Your task to perform on an android device: Clear all items from cart on bestbuy.com. Search for dell xps on bestbuy.com, select the first entry, and add it to the cart. Image 0: 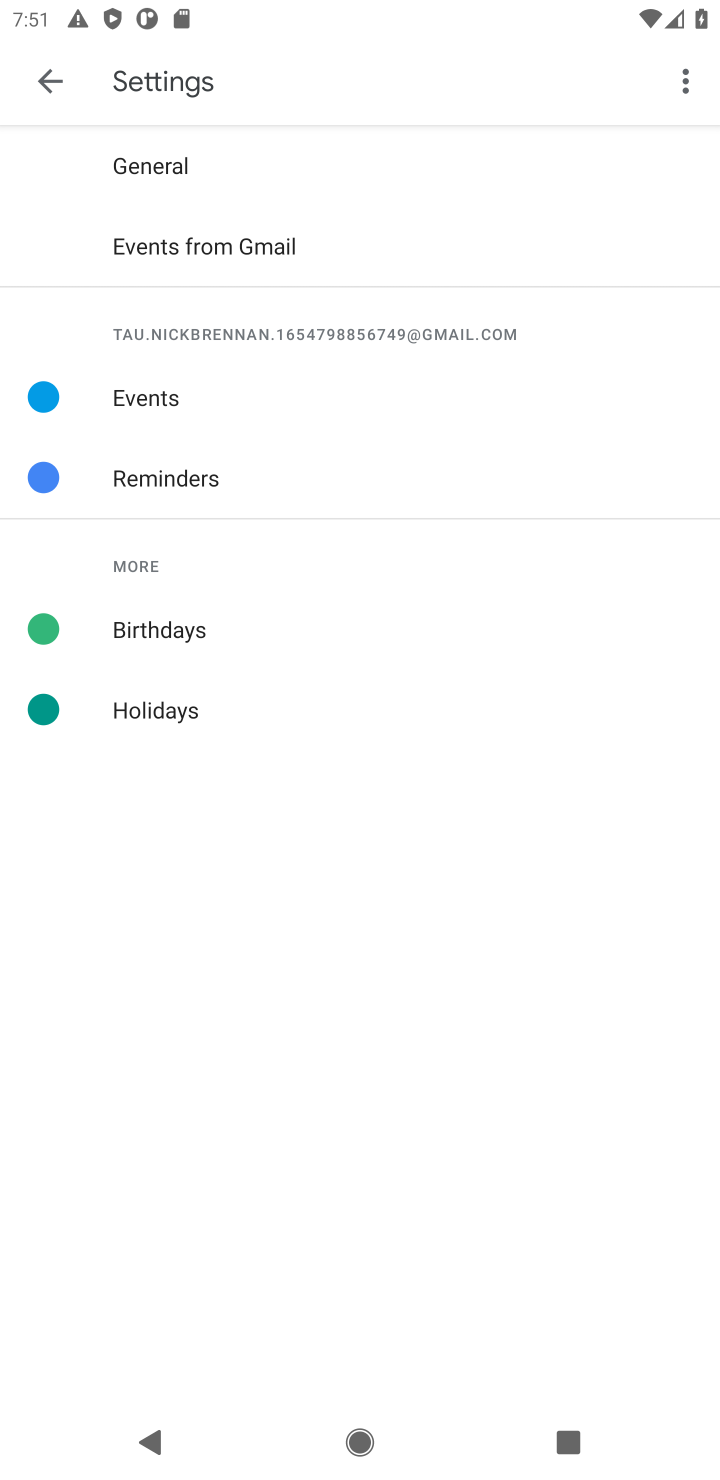
Step 0: press home button
Your task to perform on an android device: Clear all items from cart on bestbuy.com. Search for dell xps on bestbuy.com, select the first entry, and add it to the cart. Image 1: 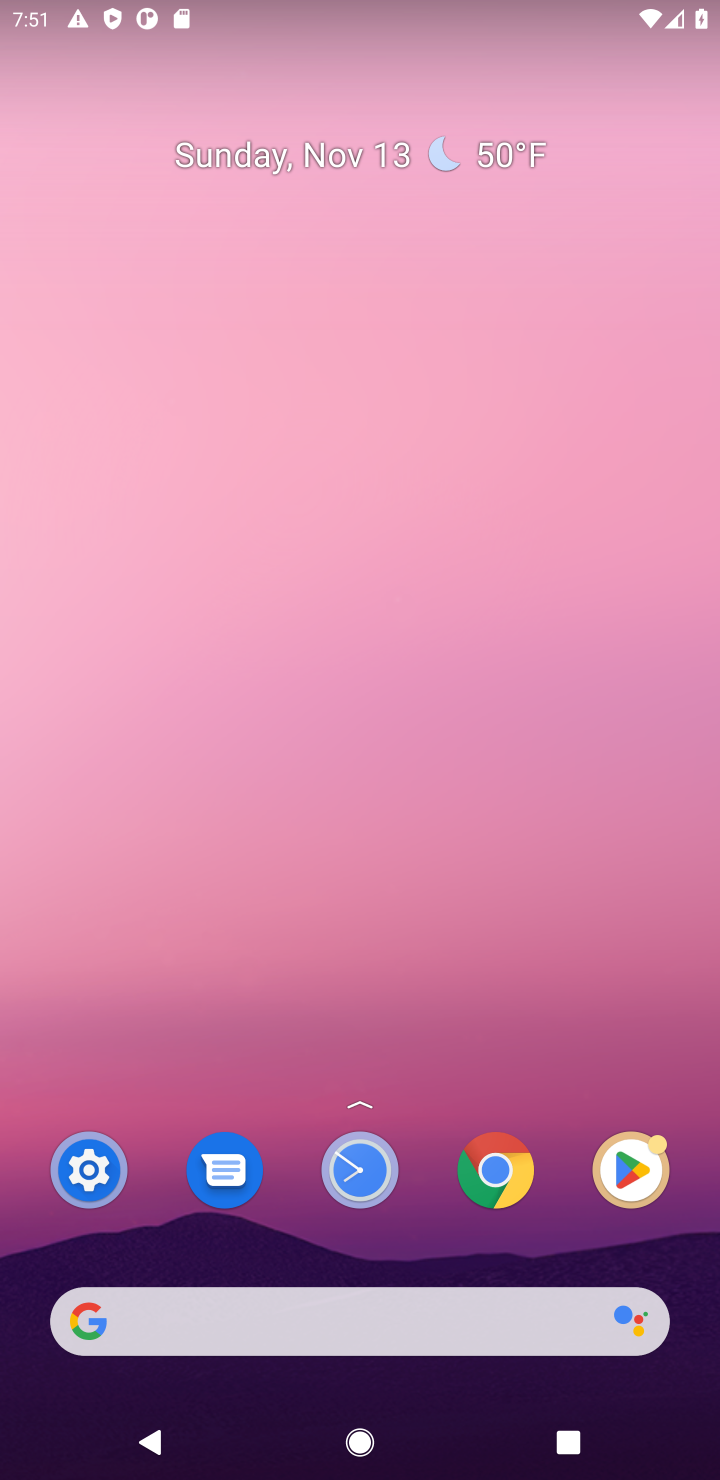
Step 1: click (400, 1338)
Your task to perform on an android device: Clear all items from cart on bestbuy.com. Search for dell xps on bestbuy.com, select the first entry, and add it to the cart. Image 2: 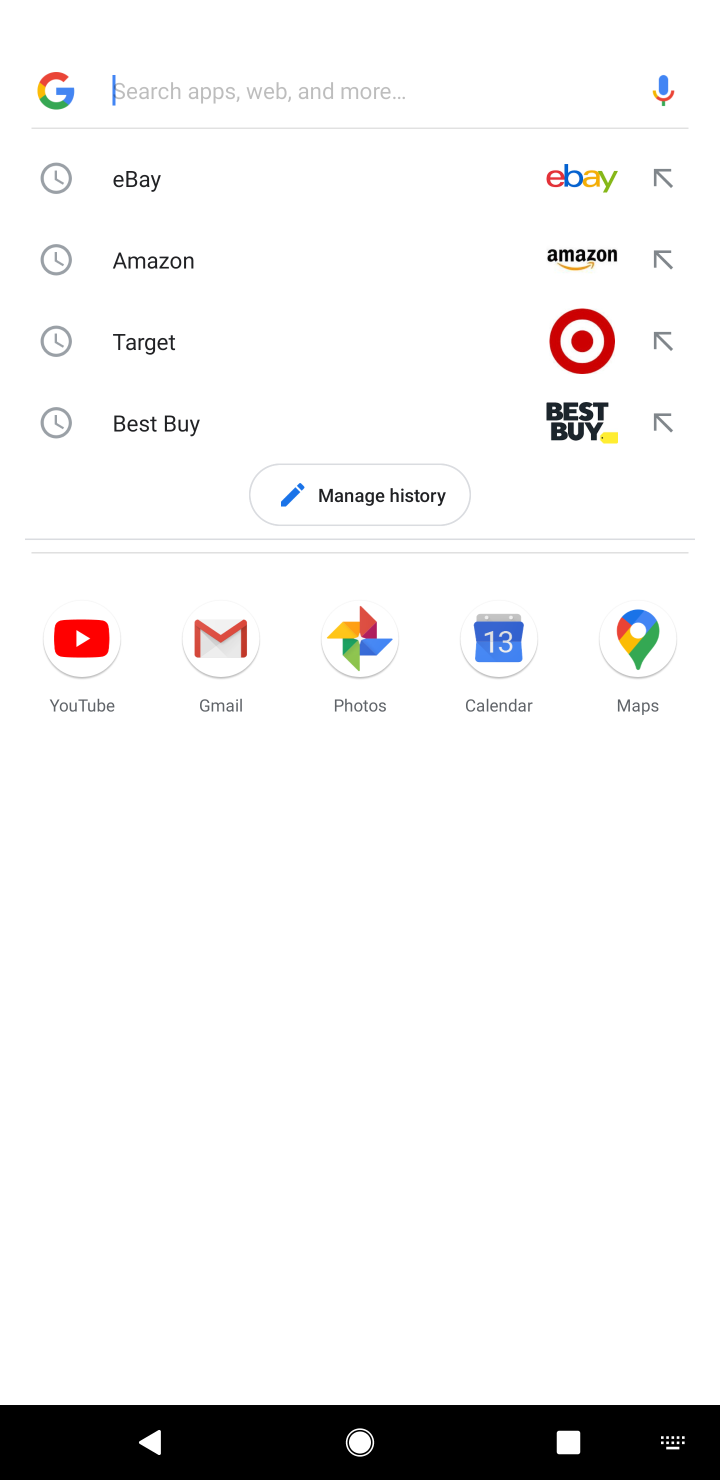
Step 2: type "bestbuy"
Your task to perform on an android device: Clear all items from cart on bestbuy.com. Search for dell xps on bestbuy.com, select the first entry, and add it to the cart. Image 3: 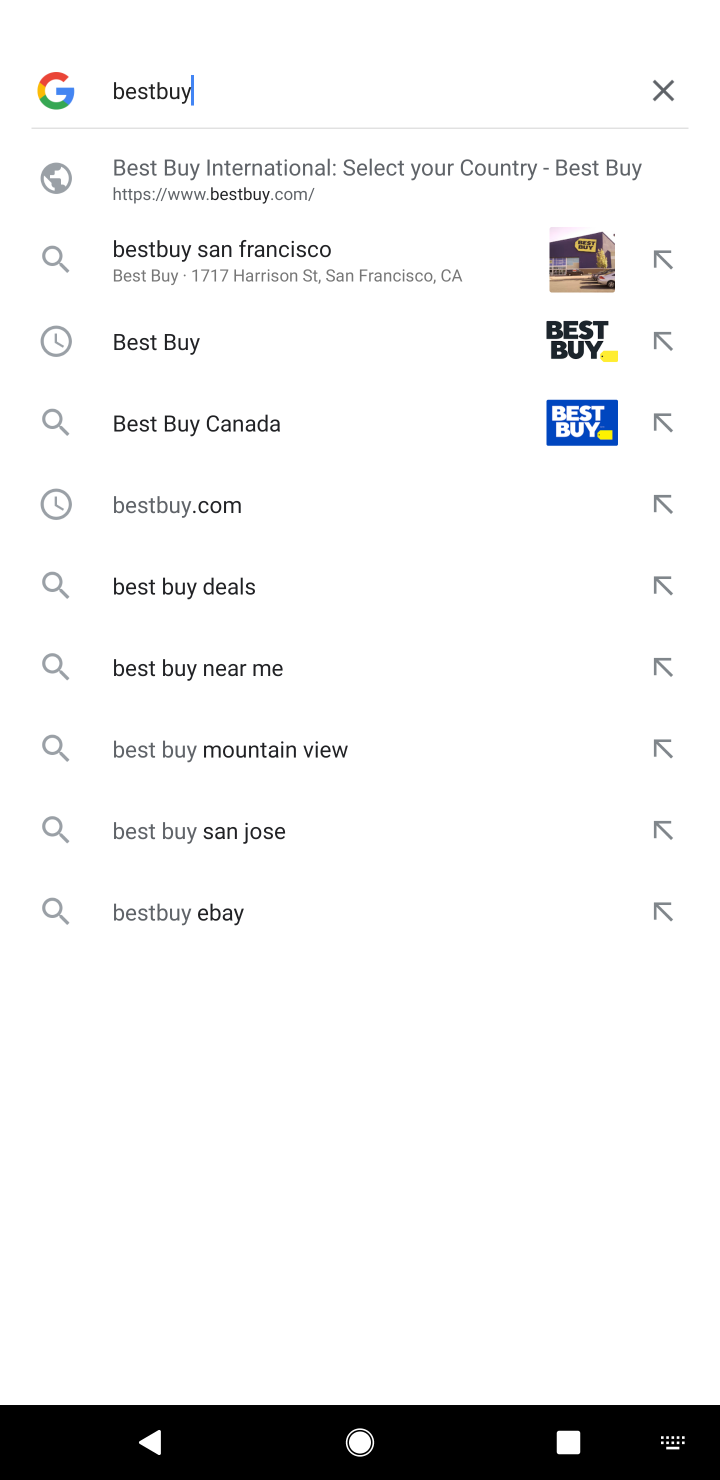
Step 3: click (180, 257)
Your task to perform on an android device: Clear all items from cart on bestbuy.com. Search for dell xps on bestbuy.com, select the first entry, and add it to the cart. Image 4: 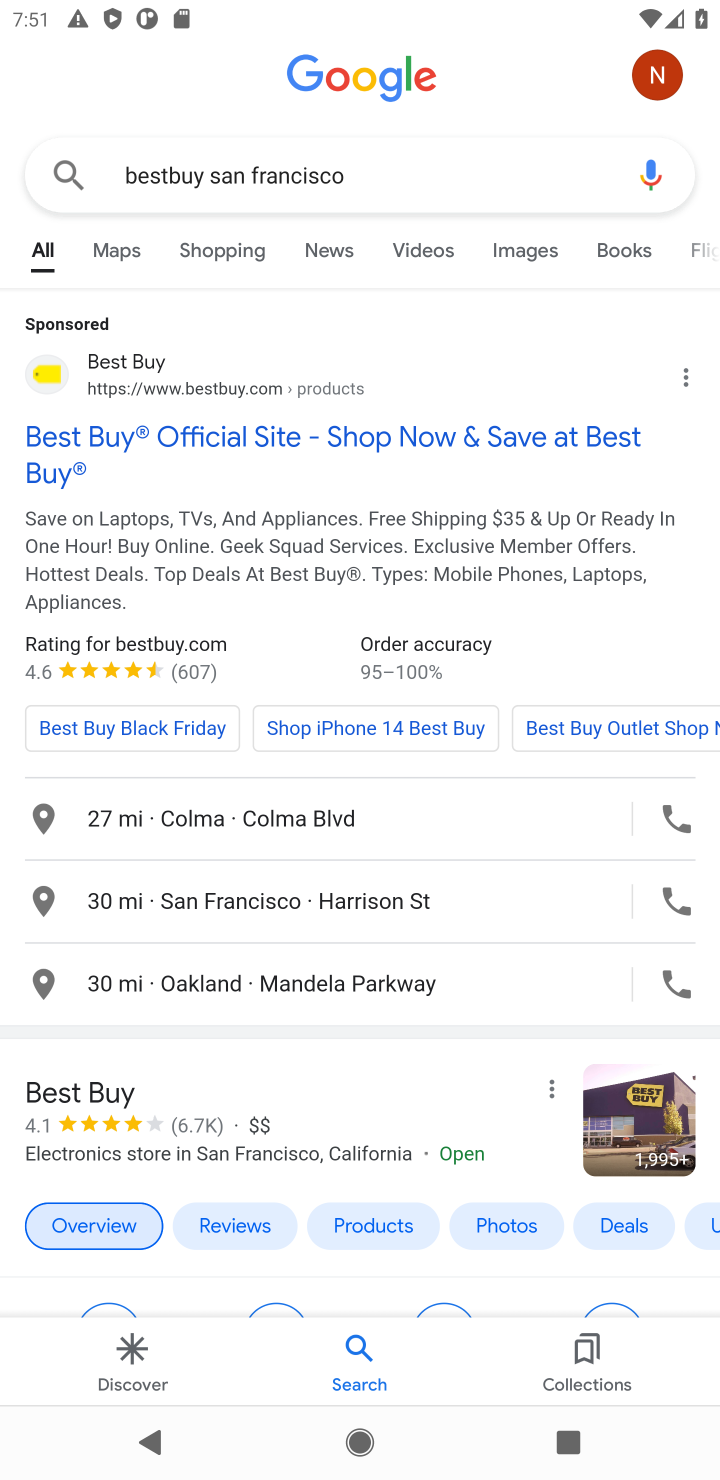
Step 4: click (146, 416)
Your task to perform on an android device: Clear all items from cart on bestbuy.com. Search for dell xps on bestbuy.com, select the first entry, and add it to the cart. Image 5: 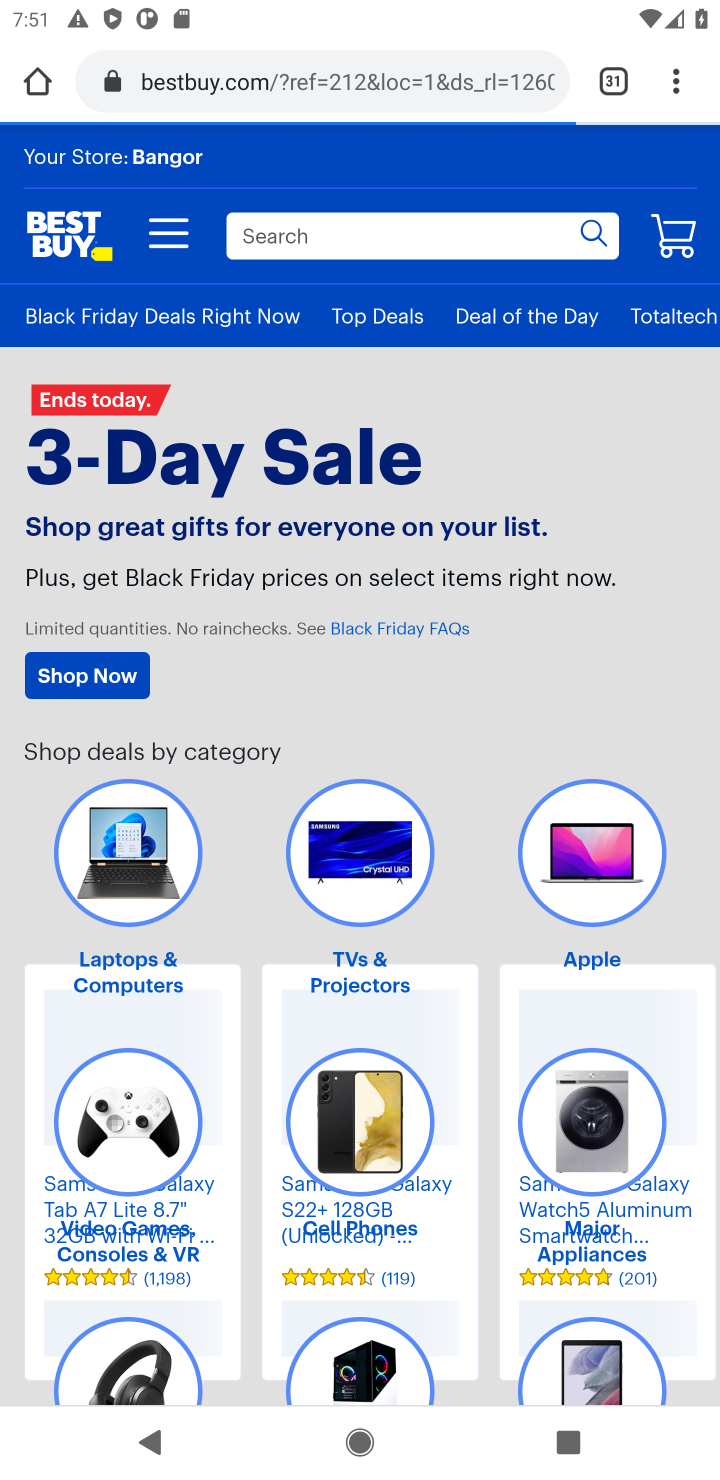
Step 5: task complete